Your task to perform on an android device: Go to settings Image 0: 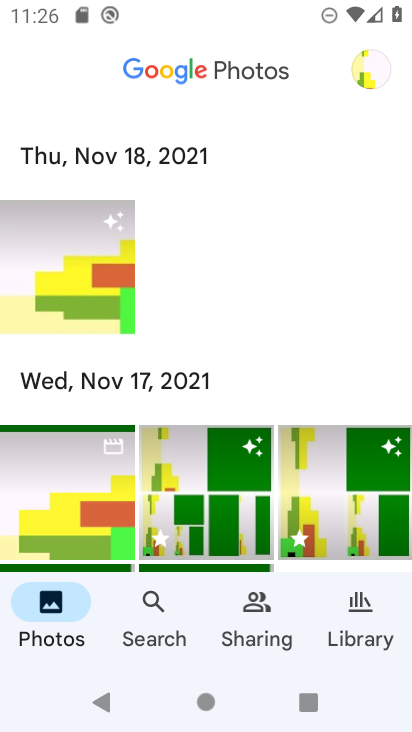
Step 0: press home button
Your task to perform on an android device: Go to settings Image 1: 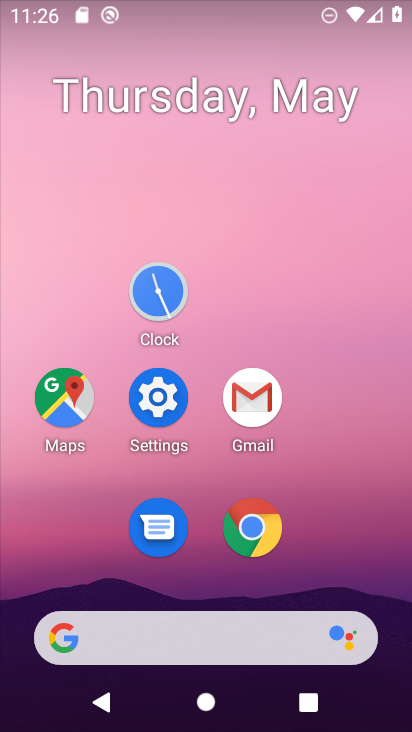
Step 1: click (148, 388)
Your task to perform on an android device: Go to settings Image 2: 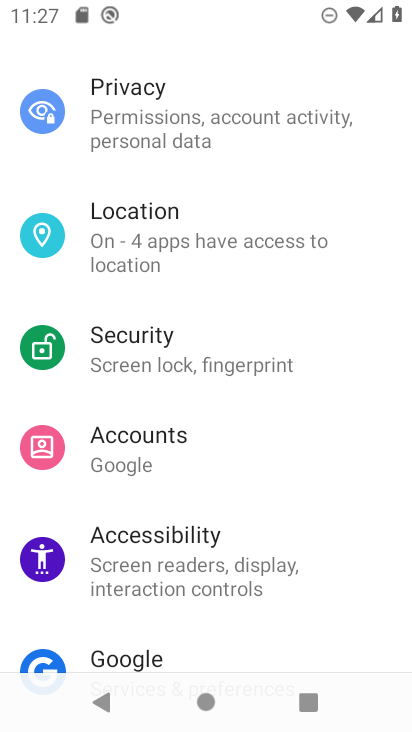
Step 2: task complete